Your task to perform on an android device: turn pop-ups on in chrome Image 0: 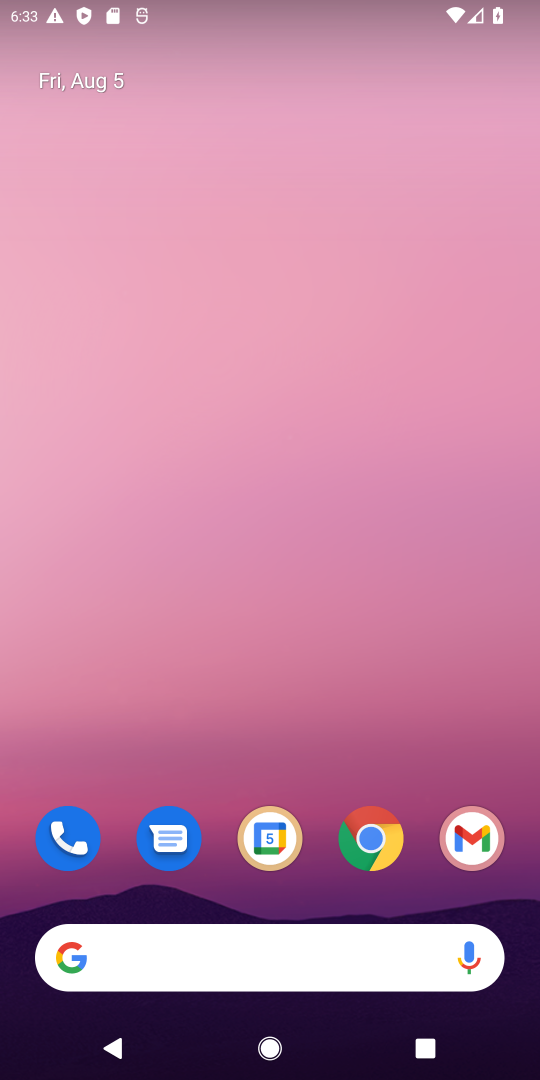
Step 0: click (366, 844)
Your task to perform on an android device: turn pop-ups on in chrome Image 1: 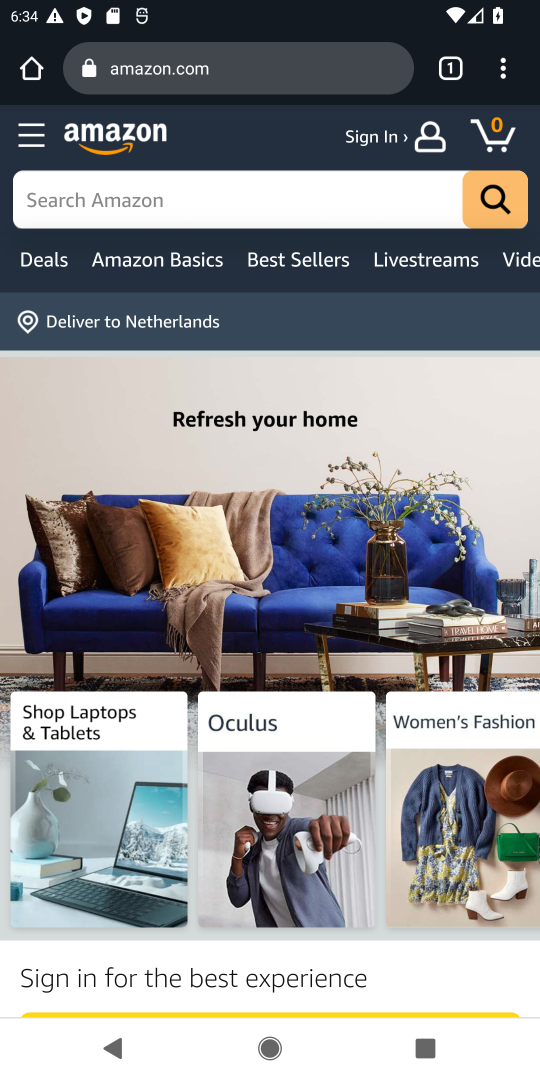
Step 1: drag from (501, 84) to (324, 862)
Your task to perform on an android device: turn pop-ups on in chrome Image 2: 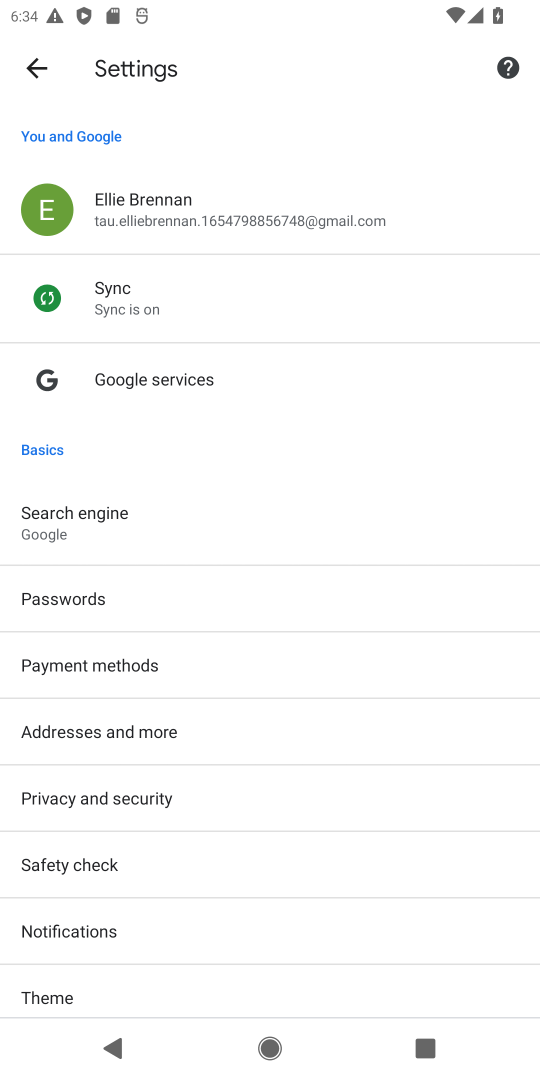
Step 2: drag from (265, 934) to (258, 446)
Your task to perform on an android device: turn pop-ups on in chrome Image 3: 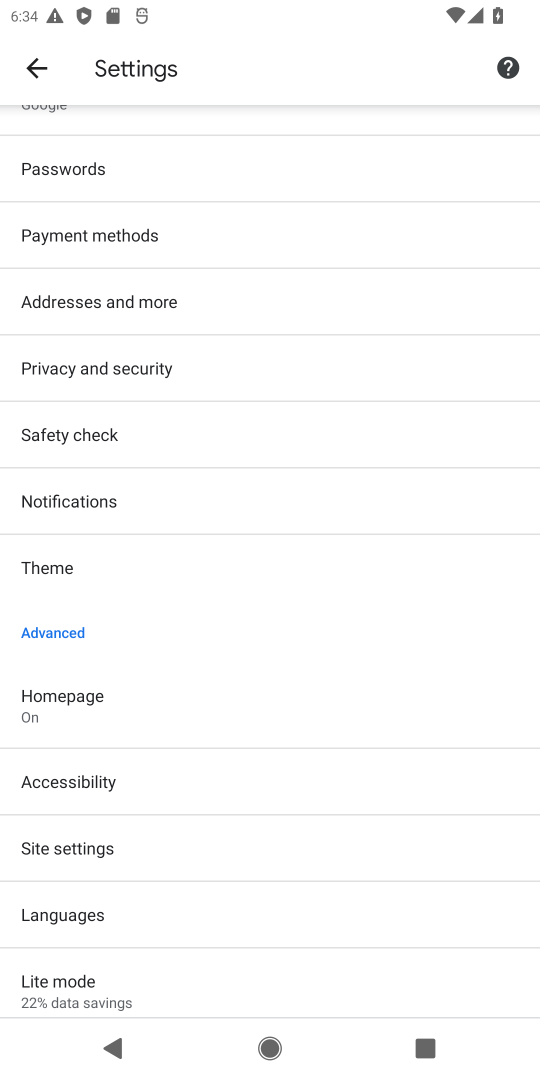
Step 3: click (64, 848)
Your task to perform on an android device: turn pop-ups on in chrome Image 4: 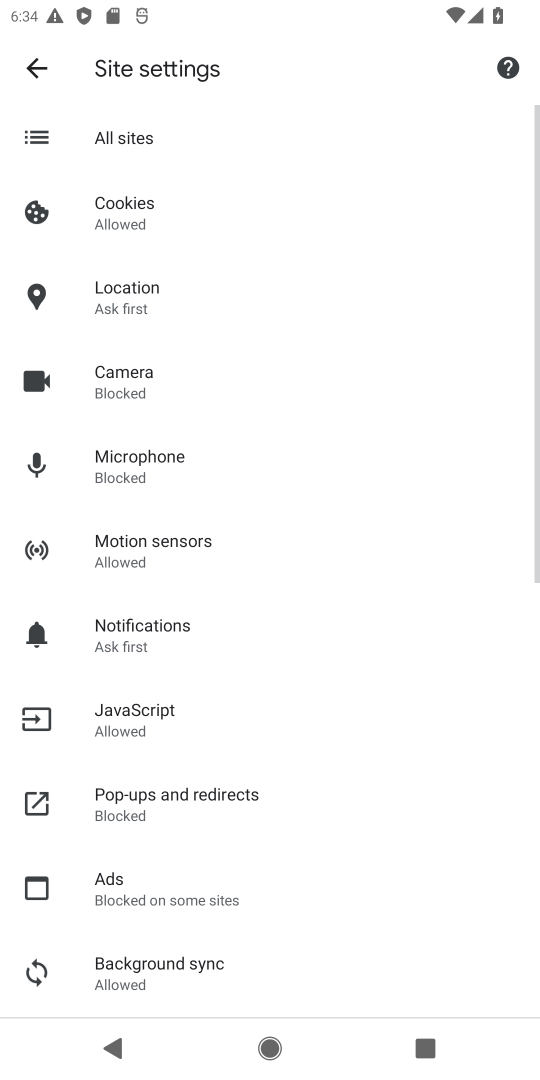
Step 4: click (180, 790)
Your task to perform on an android device: turn pop-ups on in chrome Image 5: 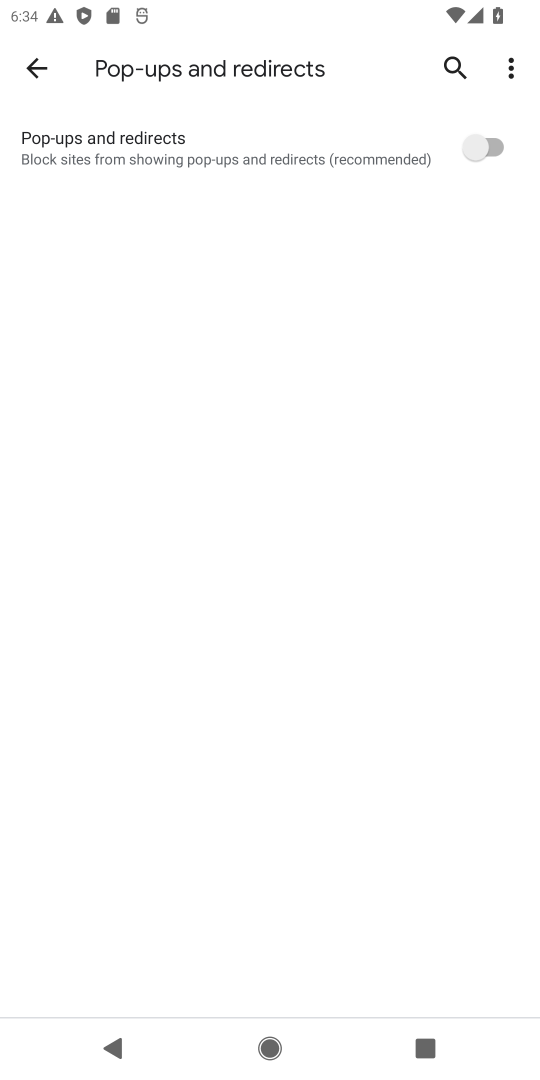
Step 5: click (469, 150)
Your task to perform on an android device: turn pop-ups on in chrome Image 6: 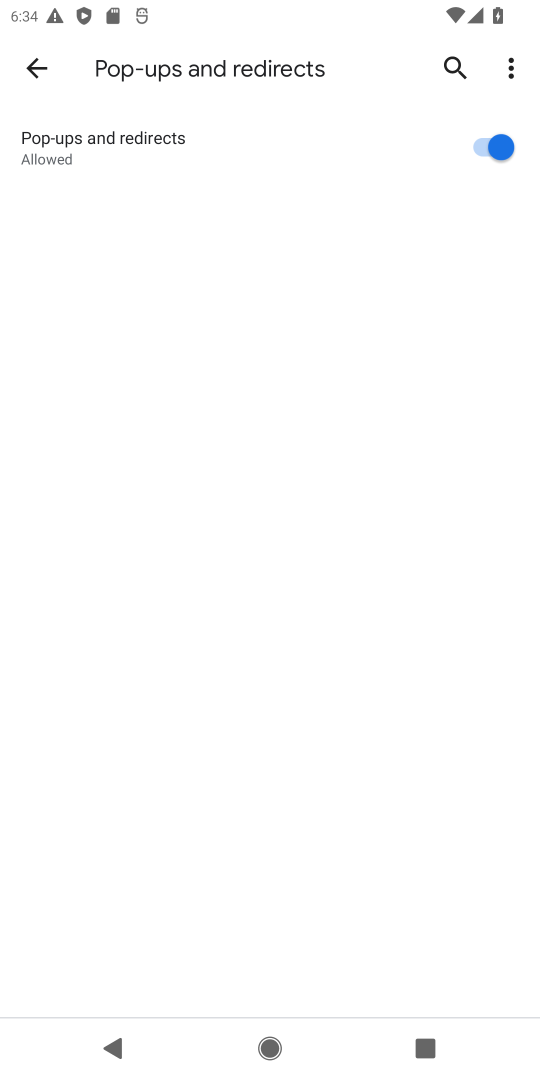
Step 6: task complete